Your task to perform on an android device: allow cookies in the chrome app Image 0: 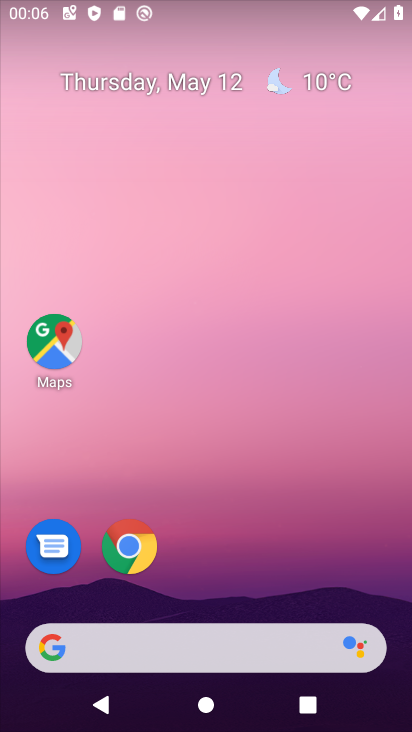
Step 0: click (131, 545)
Your task to perform on an android device: allow cookies in the chrome app Image 1: 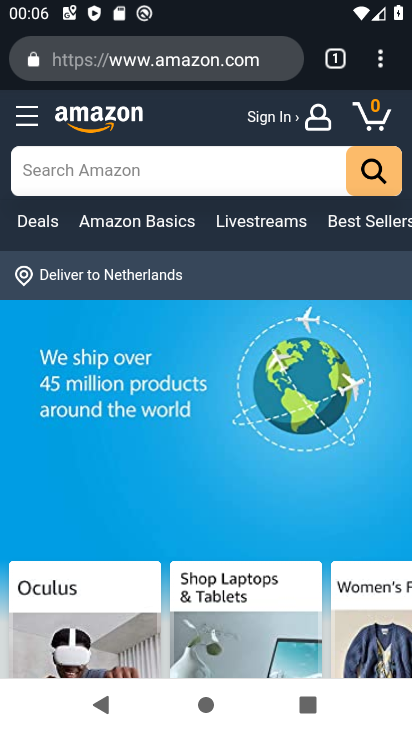
Step 1: click (381, 58)
Your task to perform on an android device: allow cookies in the chrome app Image 2: 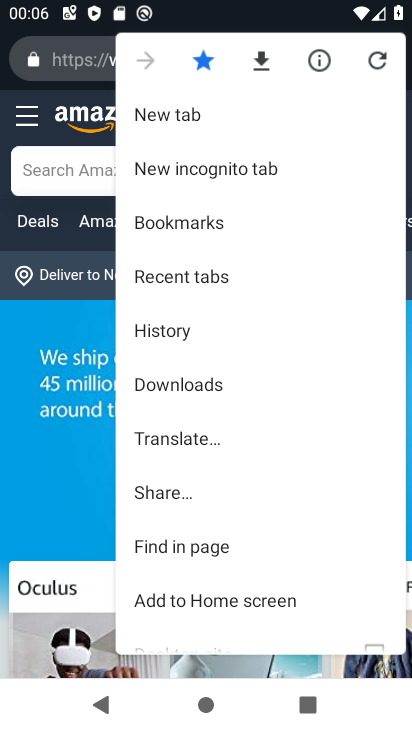
Step 2: drag from (204, 512) to (326, 187)
Your task to perform on an android device: allow cookies in the chrome app Image 3: 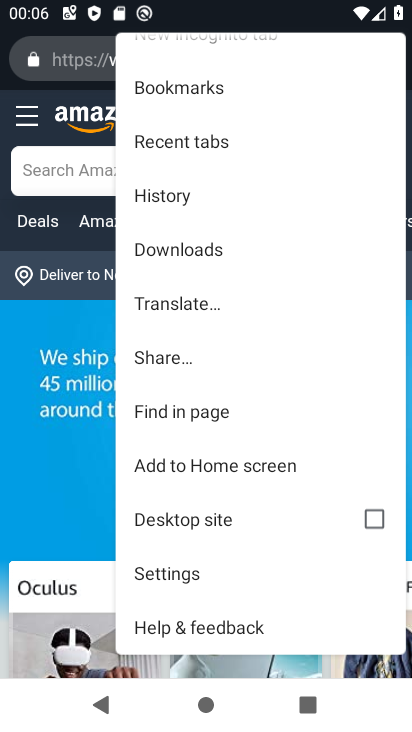
Step 3: click (184, 571)
Your task to perform on an android device: allow cookies in the chrome app Image 4: 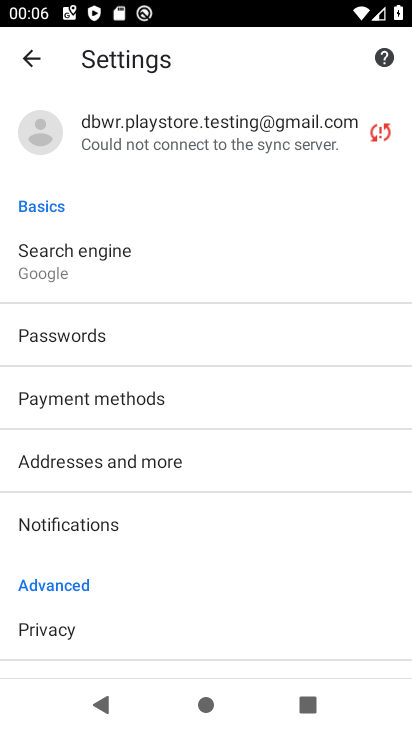
Step 4: drag from (88, 606) to (222, 245)
Your task to perform on an android device: allow cookies in the chrome app Image 5: 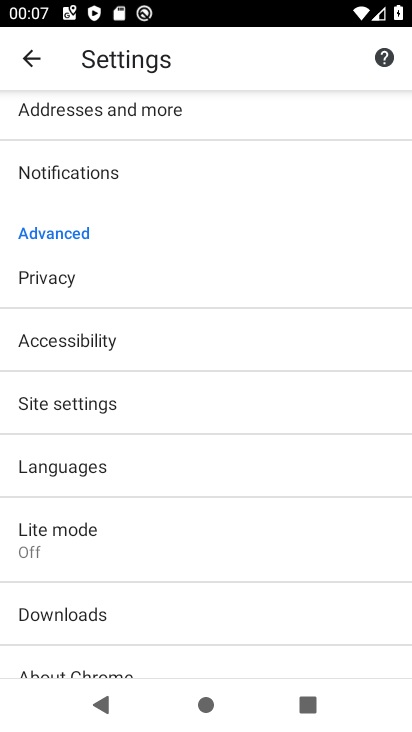
Step 5: click (55, 400)
Your task to perform on an android device: allow cookies in the chrome app Image 6: 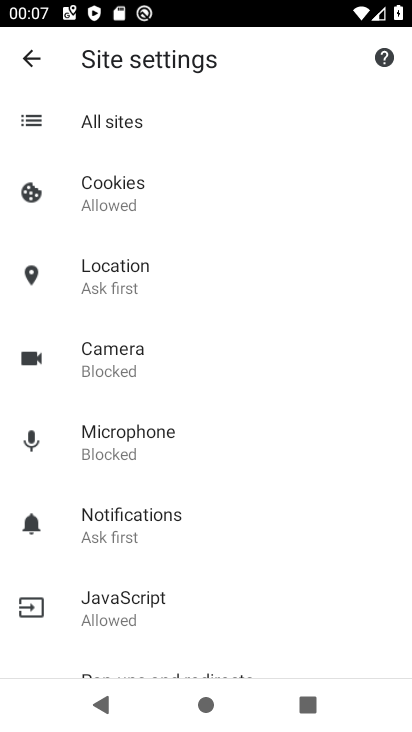
Step 6: click (143, 190)
Your task to perform on an android device: allow cookies in the chrome app Image 7: 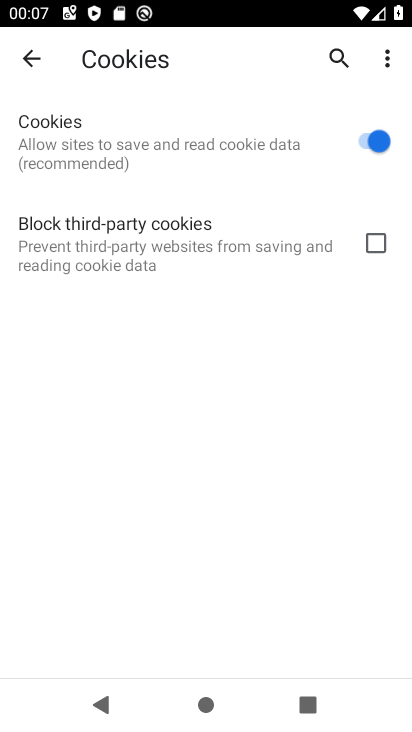
Step 7: task complete